Your task to perform on an android device: toggle location history Image 0: 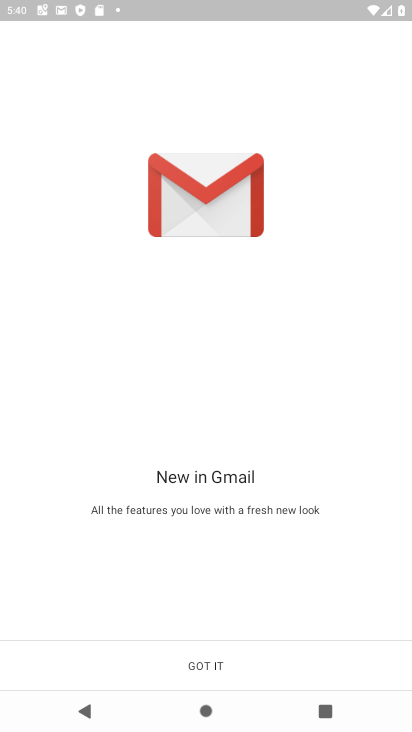
Step 0: press home button
Your task to perform on an android device: toggle location history Image 1: 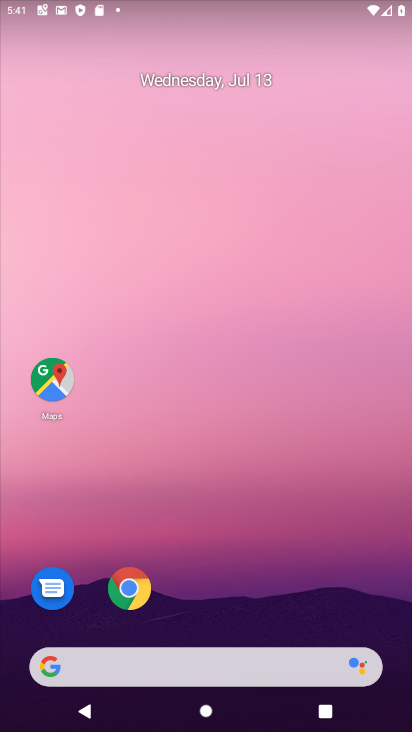
Step 1: drag from (218, 530) to (223, 124)
Your task to perform on an android device: toggle location history Image 2: 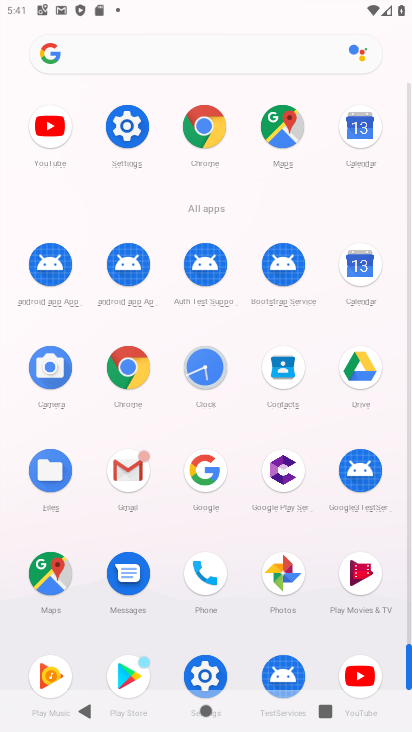
Step 2: click (126, 126)
Your task to perform on an android device: toggle location history Image 3: 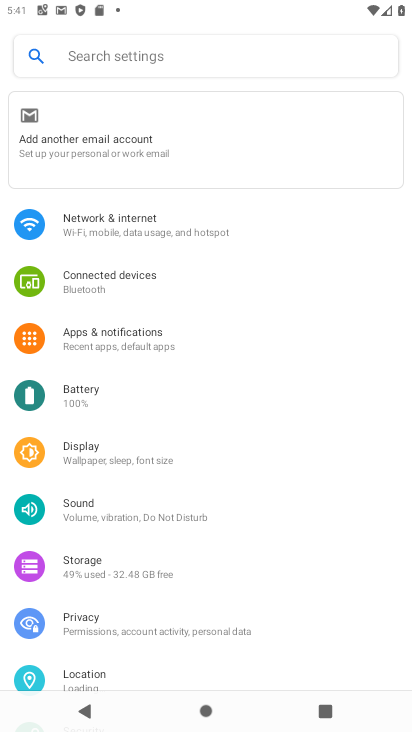
Step 3: drag from (177, 544) to (202, 384)
Your task to perform on an android device: toggle location history Image 4: 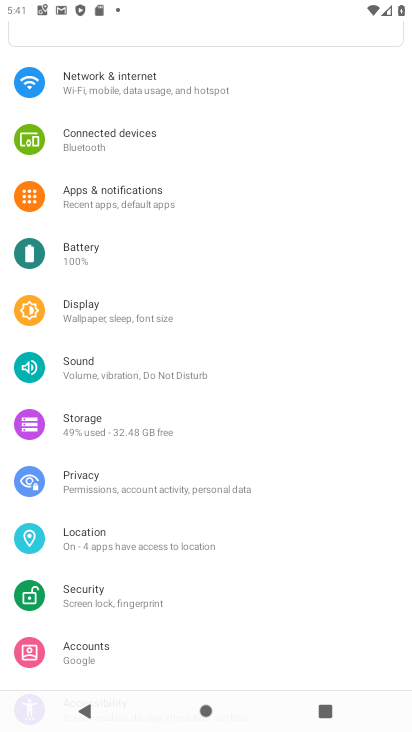
Step 4: click (129, 541)
Your task to perform on an android device: toggle location history Image 5: 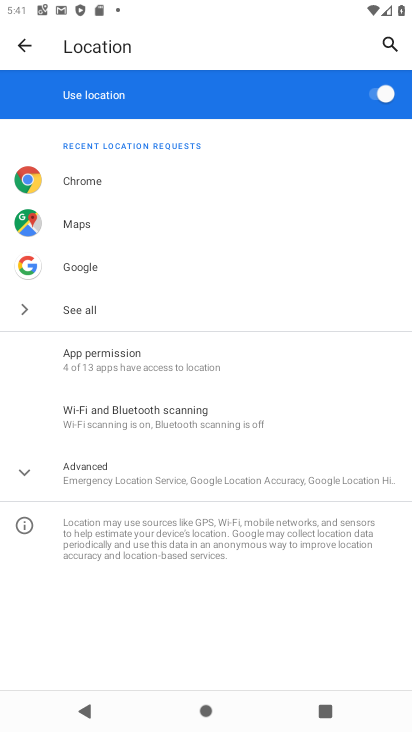
Step 5: click (143, 478)
Your task to perform on an android device: toggle location history Image 6: 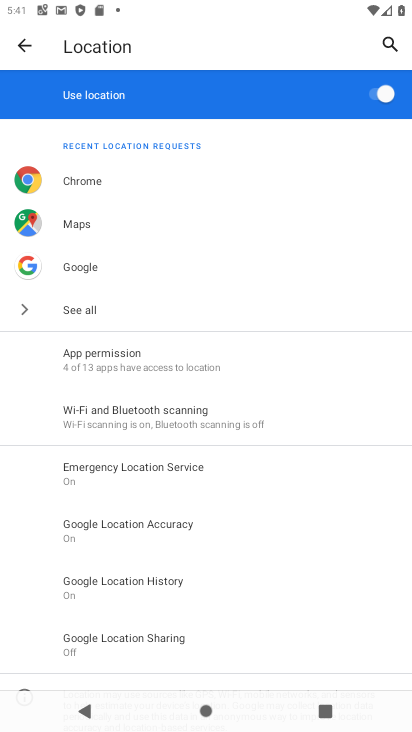
Step 6: click (143, 589)
Your task to perform on an android device: toggle location history Image 7: 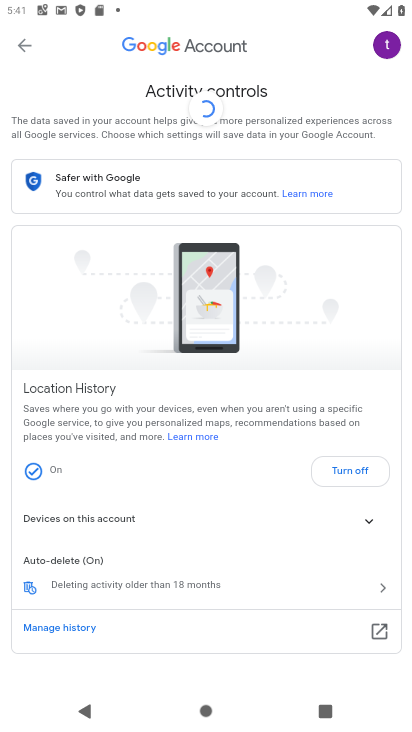
Step 7: click (348, 475)
Your task to perform on an android device: toggle location history Image 8: 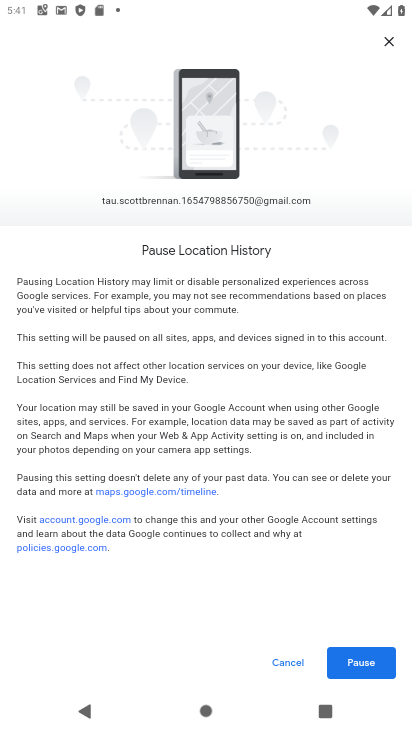
Step 8: click (347, 656)
Your task to perform on an android device: toggle location history Image 9: 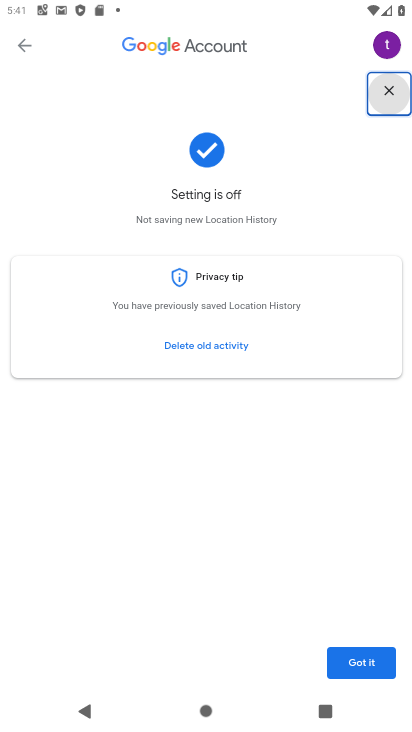
Step 9: click (347, 656)
Your task to perform on an android device: toggle location history Image 10: 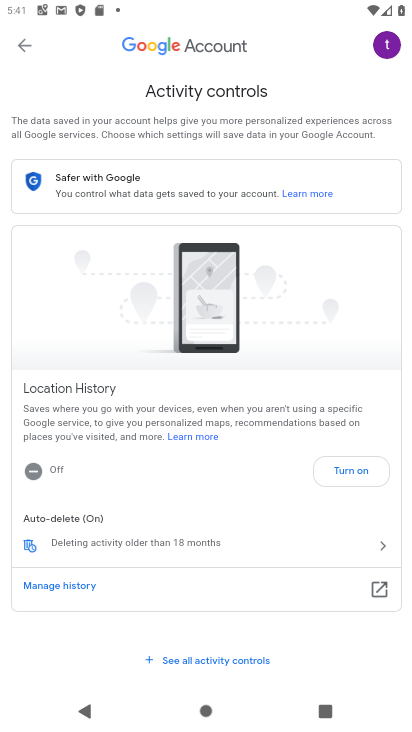
Step 10: click (347, 656)
Your task to perform on an android device: toggle location history Image 11: 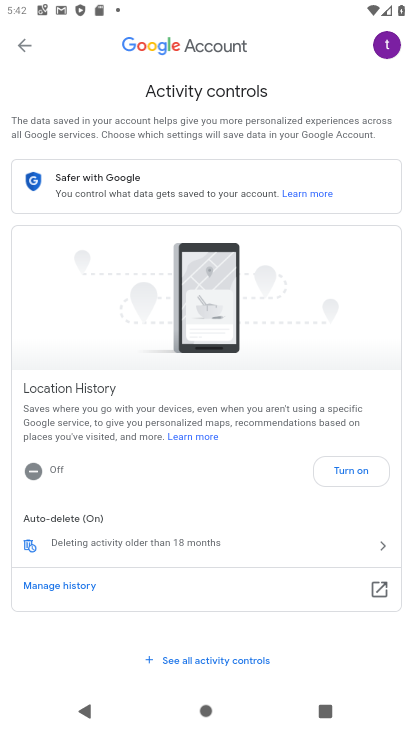
Step 11: task complete